Your task to perform on an android device: Add "dell xps" to the cart on costco Image 0: 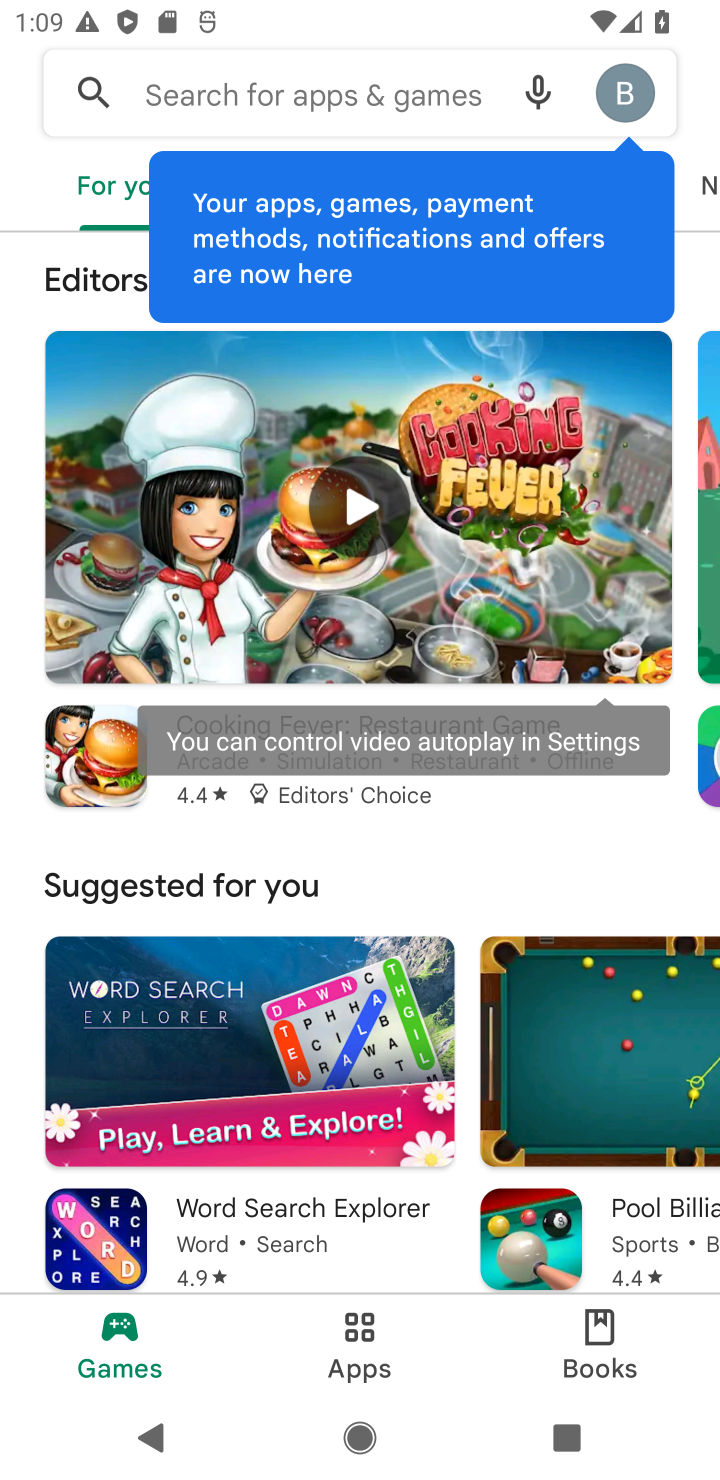
Step 0: press home button
Your task to perform on an android device: Add "dell xps" to the cart on costco Image 1: 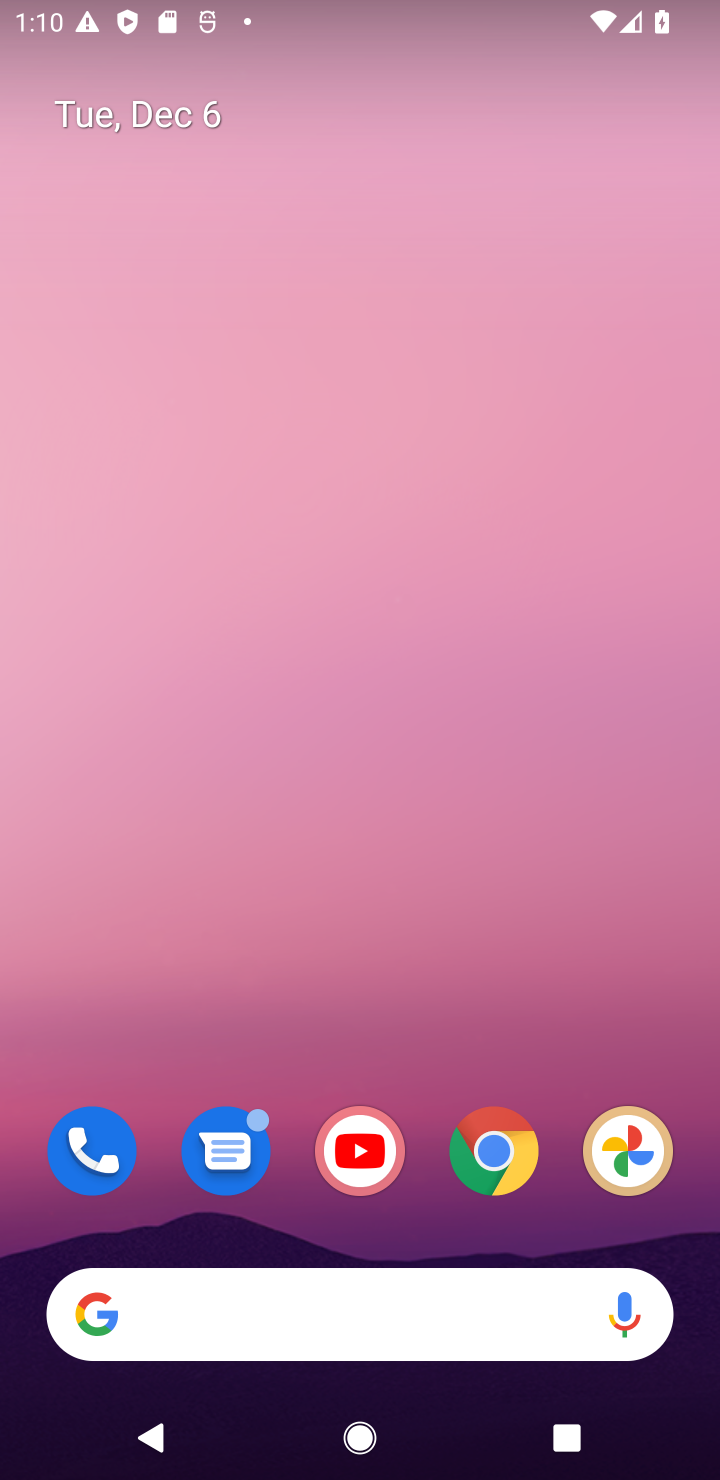
Step 1: click (495, 1174)
Your task to perform on an android device: Add "dell xps" to the cart on costco Image 2: 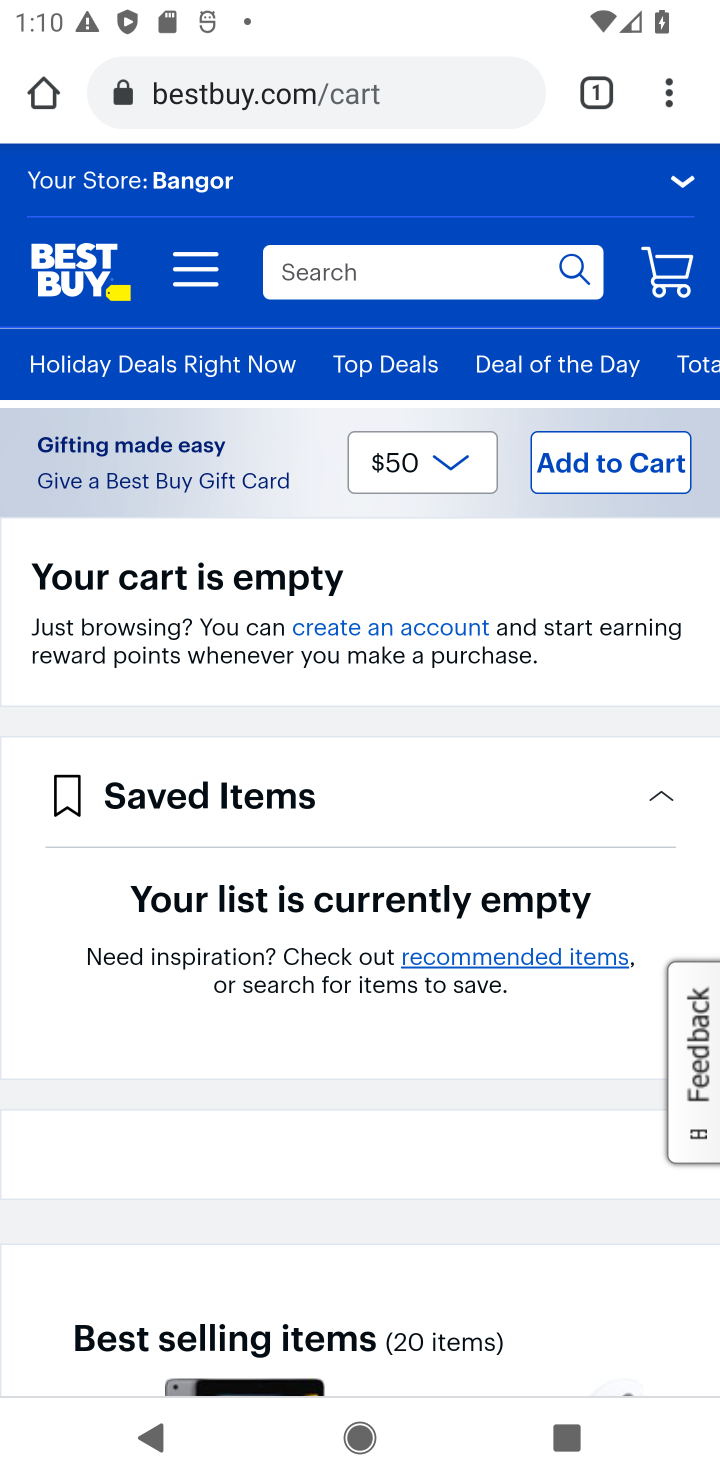
Step 2: click (275, 98)
Your task to perform on an android device: Add "dell xps" to the cart on costco Image 3: 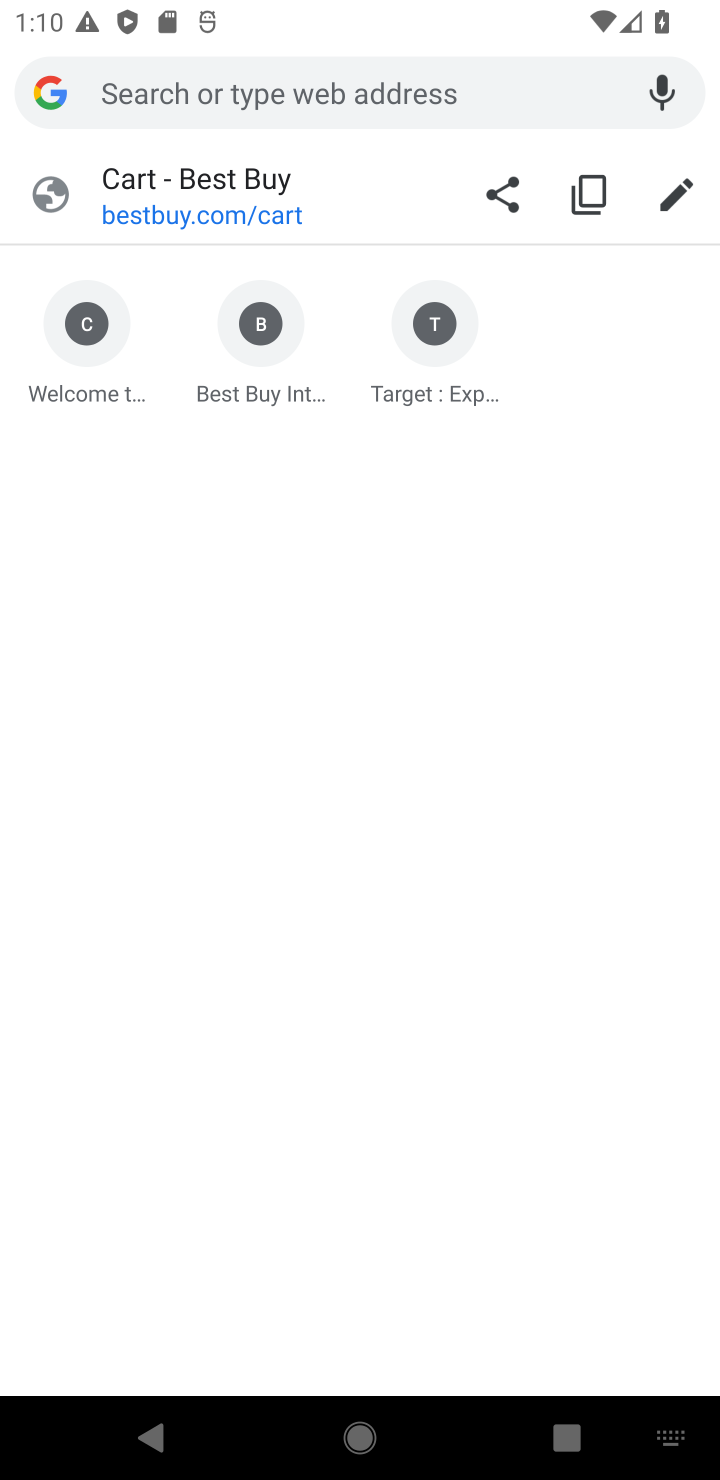
Step 3: type "costco.com"
Your task to perform on an android device: Add "dell xps" to the cart on costco Image 4: 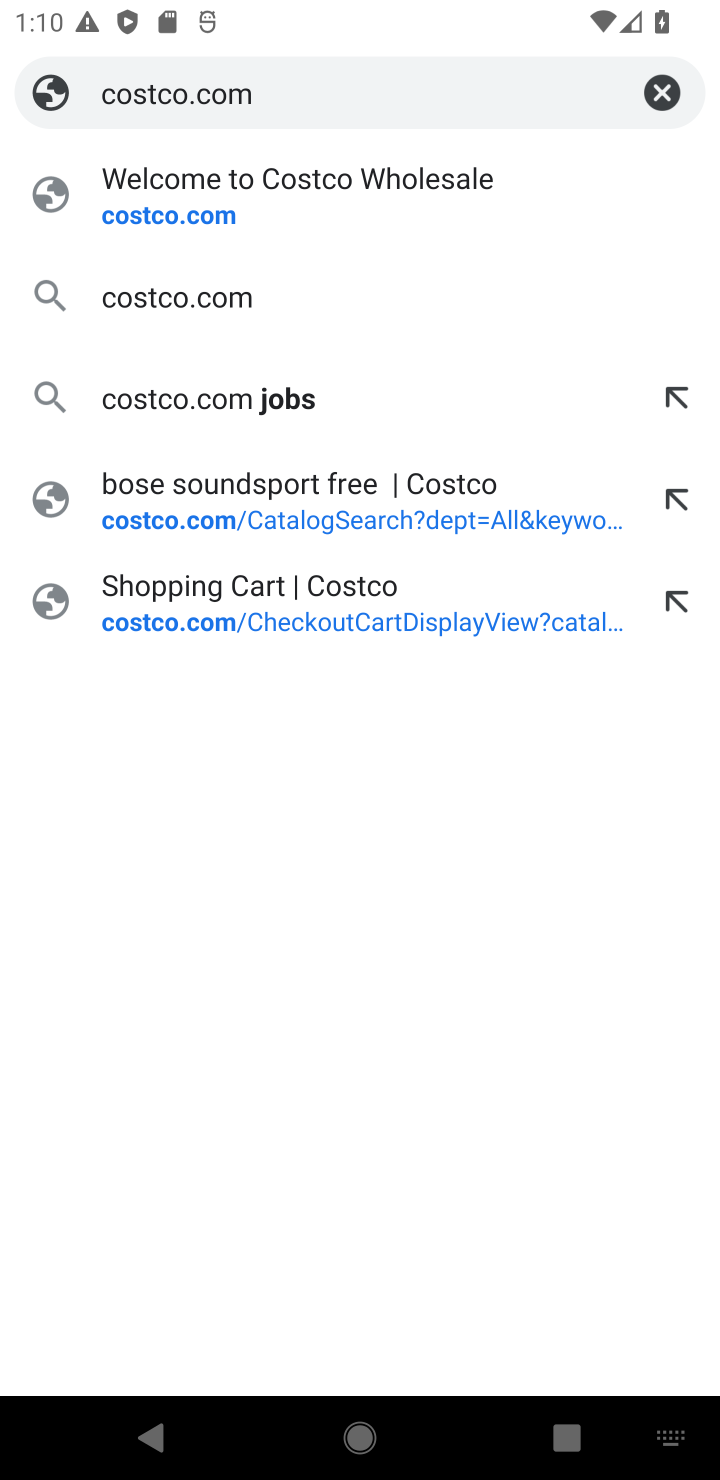
Step 4: click (193, 221)
Your task to perform on an android device: Add "dell xps" to the cart on costco Image 5: 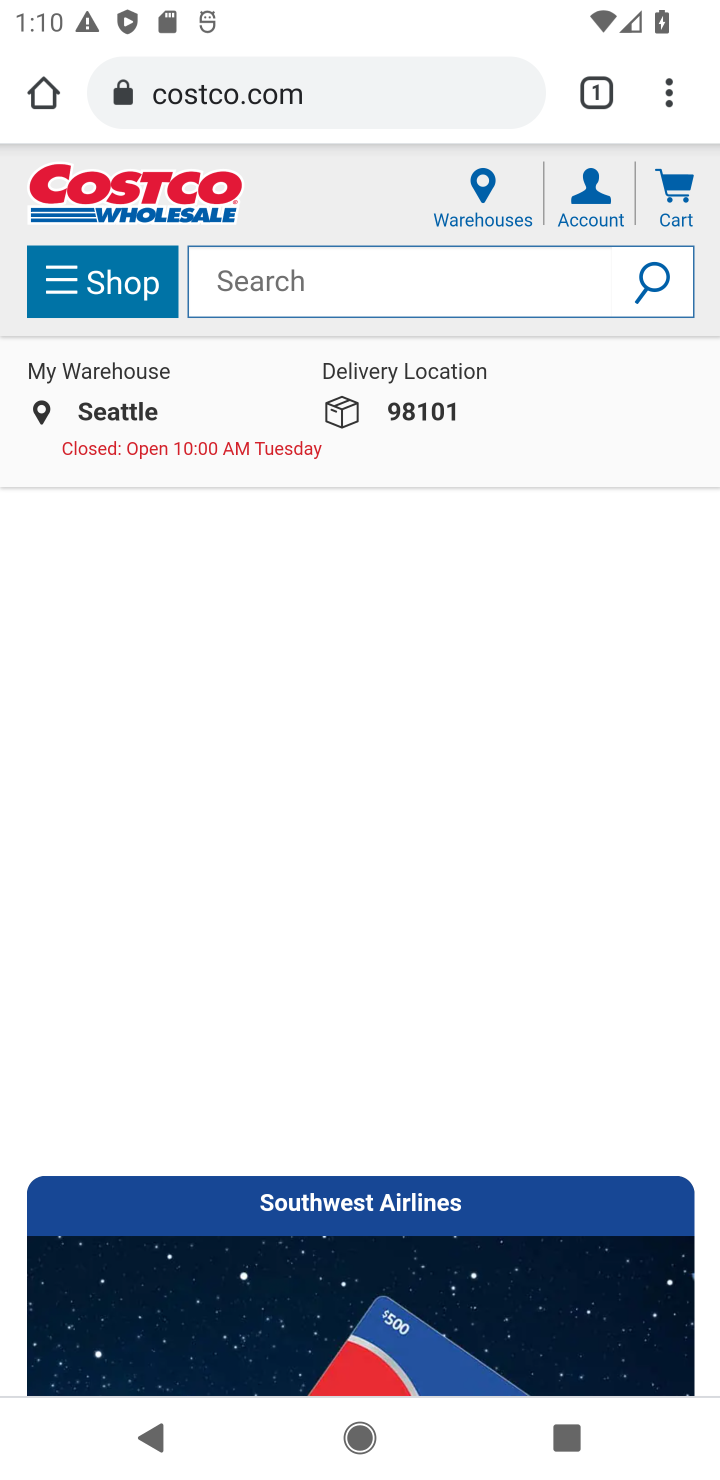
Step 5: click (321, 281)
Your task to perform on an android device: Add "dell xps" to the cart on costco Image 6: 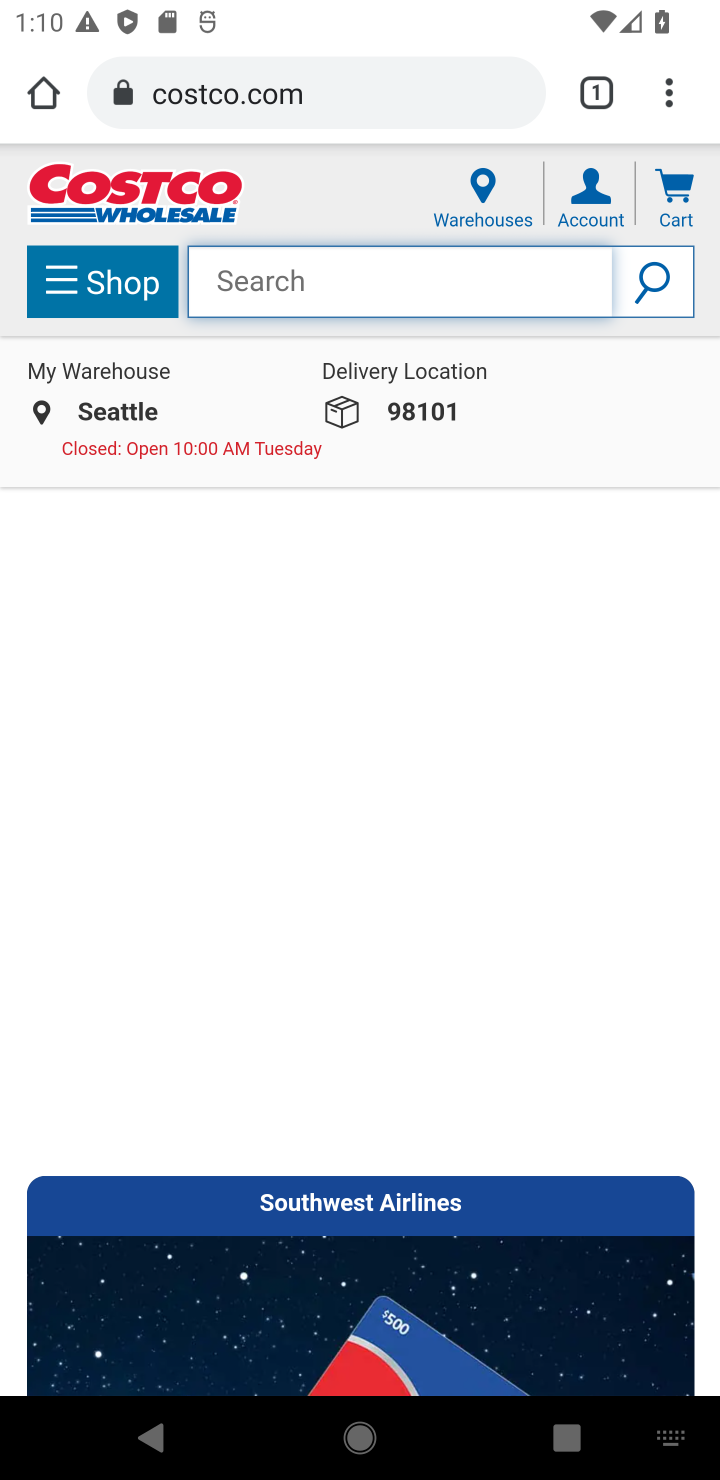
Step 6: type "dell xps"
Your task to perform on an android device: Add "dell xps" to the cart on costco Image 7: 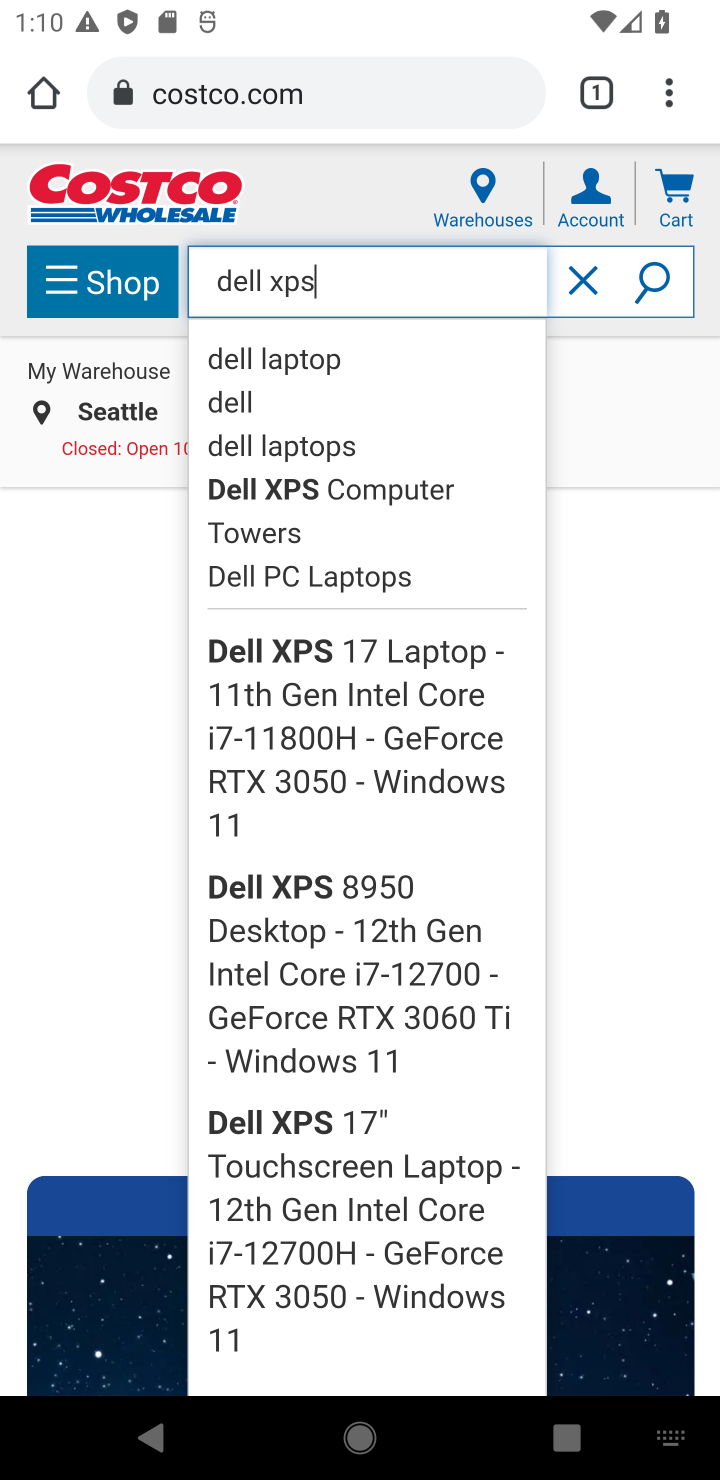
Step 7: click (657, 303)
Your task to perform on an android device: Add "dell xps" to the cart on costco Image 8: 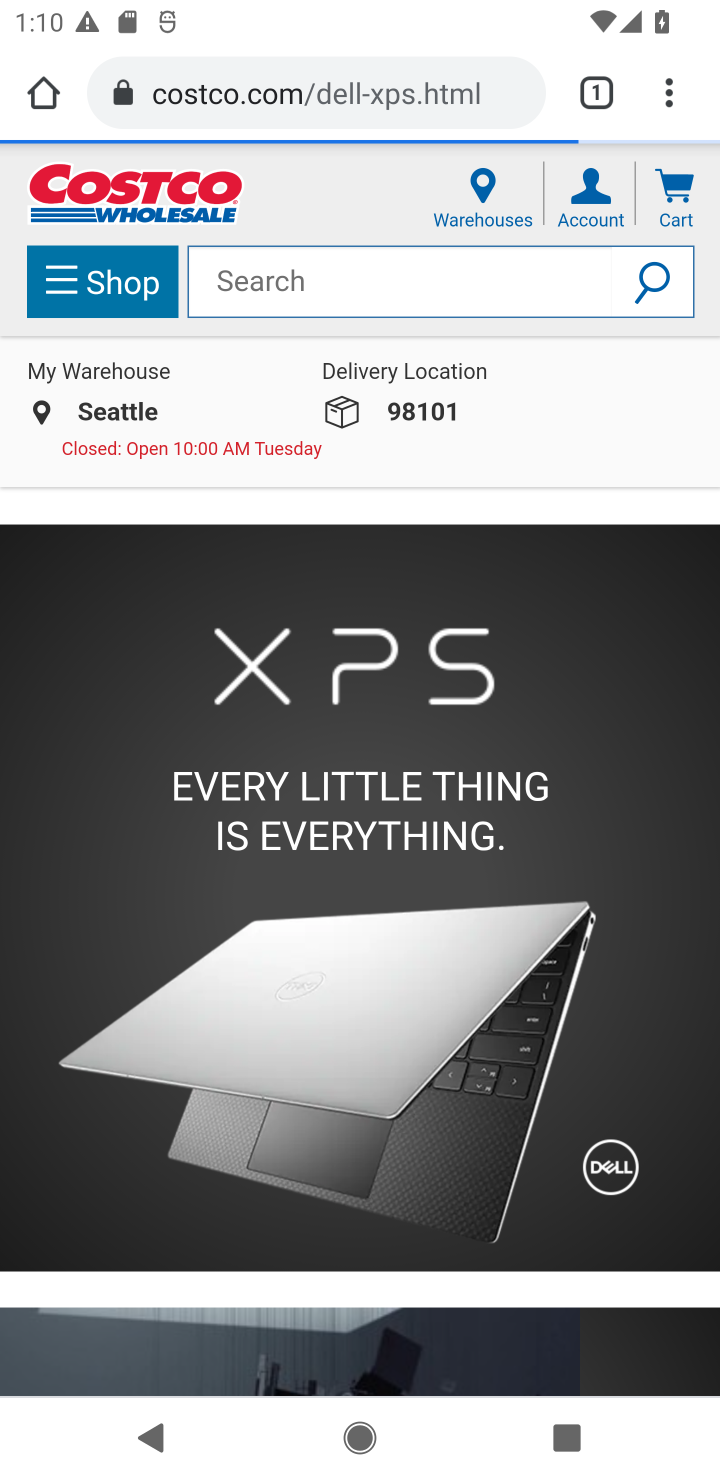
Step 8: task complete